Your task to perform on an android device: open app "DuckDuckGo Privacy Browser" (install if not already installed) Image 0: 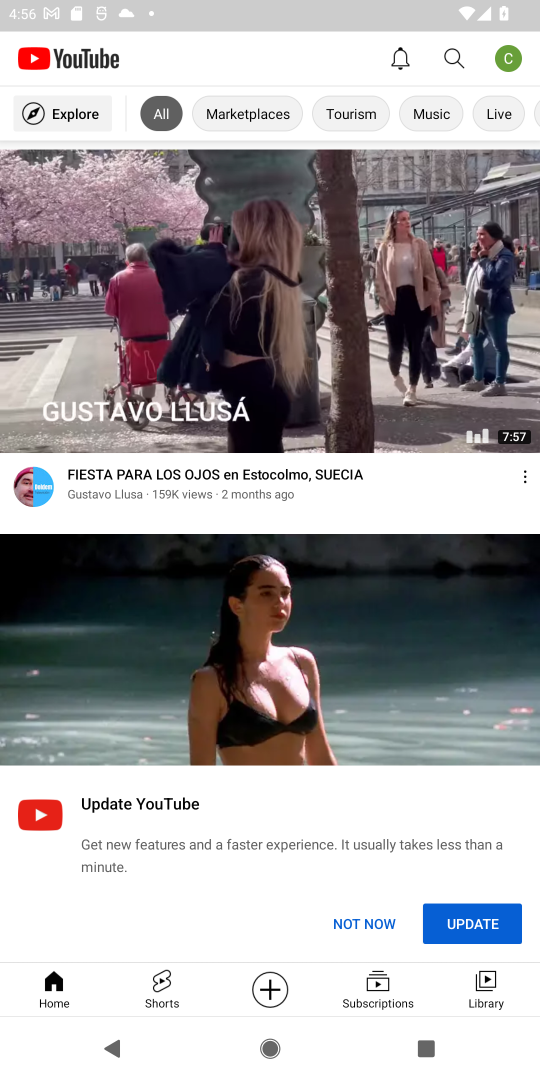
Step 0: press home button
Your task to perform on an android device: open app "DuckDuckGo Privacy Browser" (install if not already installed) Image 1: 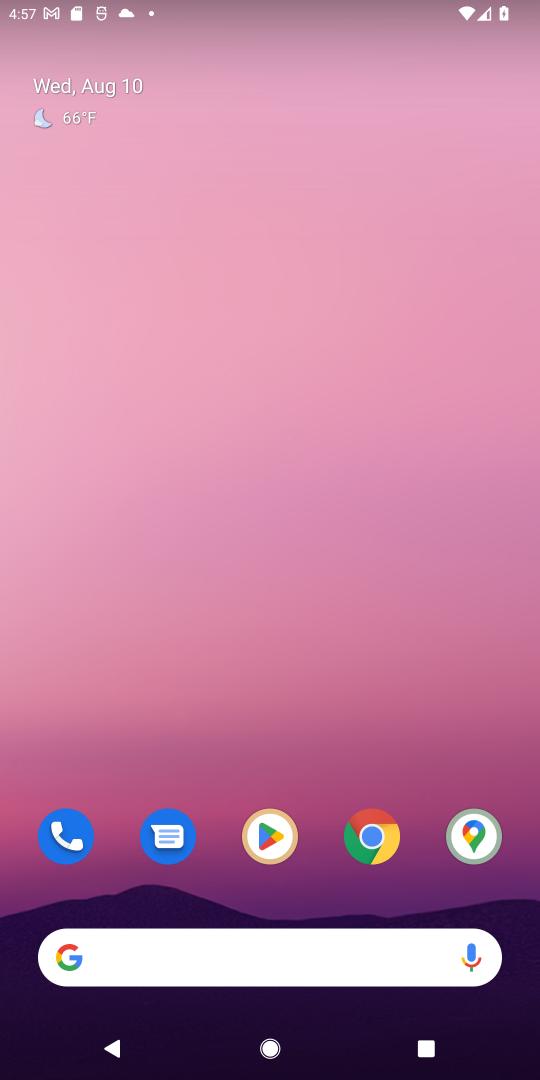
Step 1: drag from (284, 871) to (328, 197)
Your task to perform on an android device: open app "DuckDuckGo Privacy Browser" (install if not already installed) Image 2: 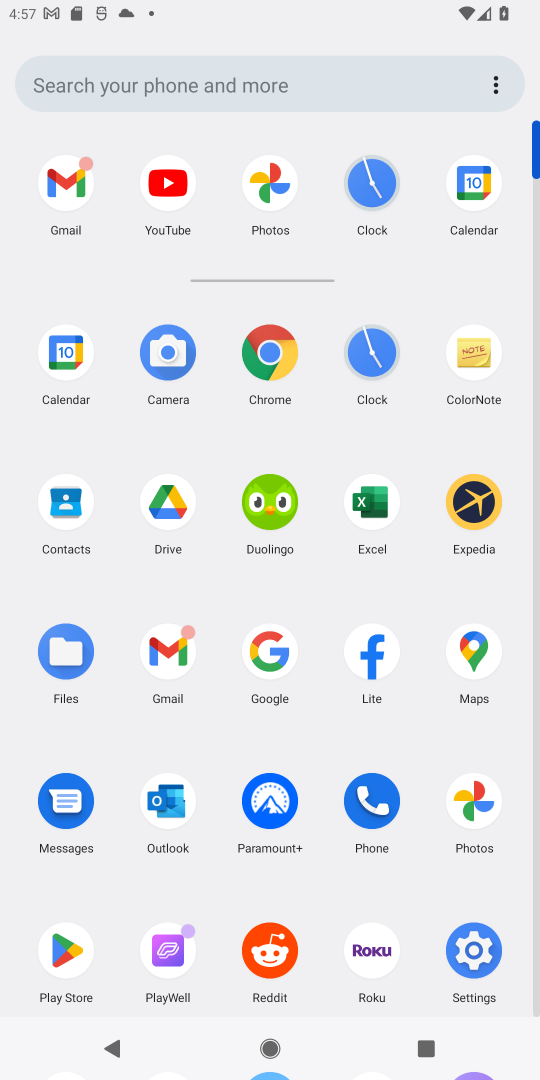
Step 2: click (66, 938)
Your task to perform on an android device: open app "DuckDuckGo Privacy Browser" (install if not already installed) Image 3: 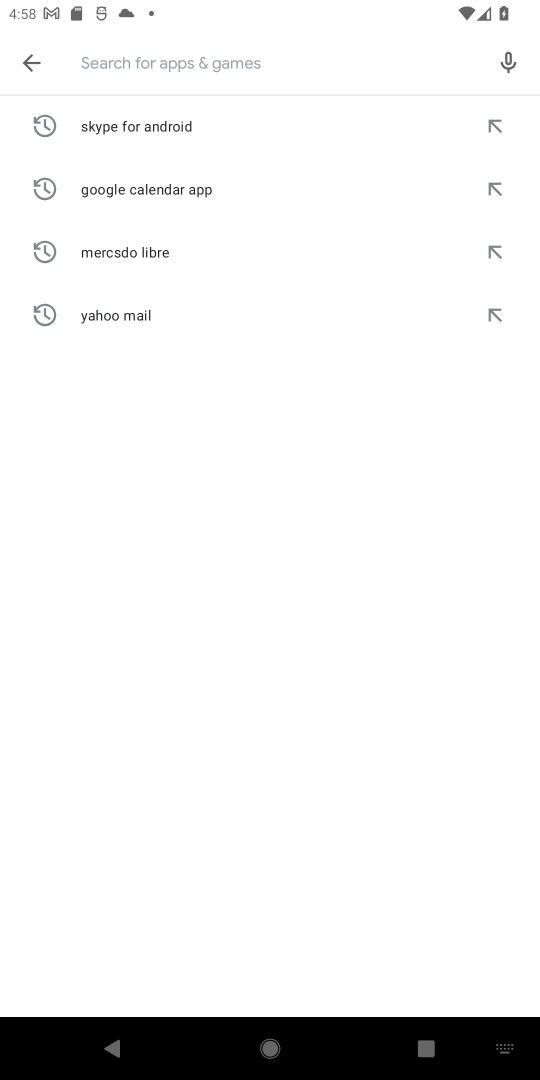
Step 3: click (317, 57)
Your task to perform on an android device: open app "DuckDuckGo Privacy Browser" (install if not already installed) Image 4: 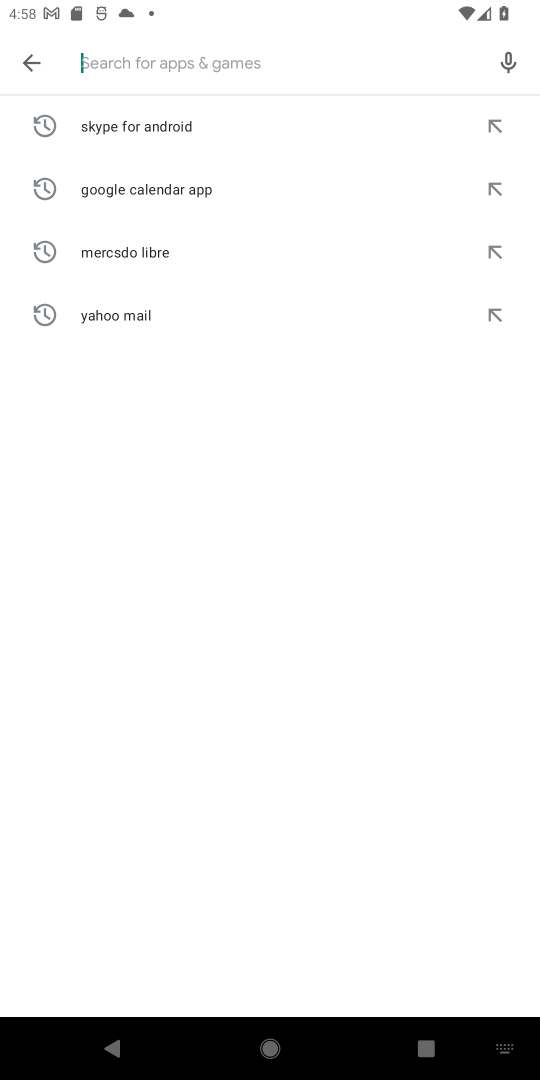
Step 4: type "DuckDuckGo Privacy Browser "
Your task to perform on an android device: open app "DuckDuckGo Privacy Browser" (install if not already installed) Image 5: 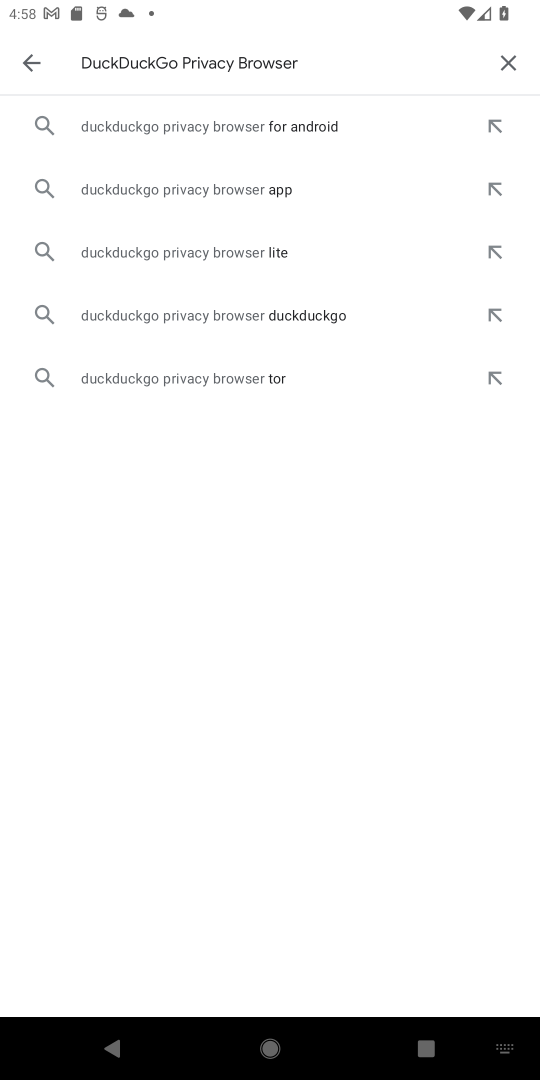
Step 5: click (293, 126)
Your task to perform on an android device: open app "DuckDuckGo Privacy Browser" (install if not already installed) Image 6: 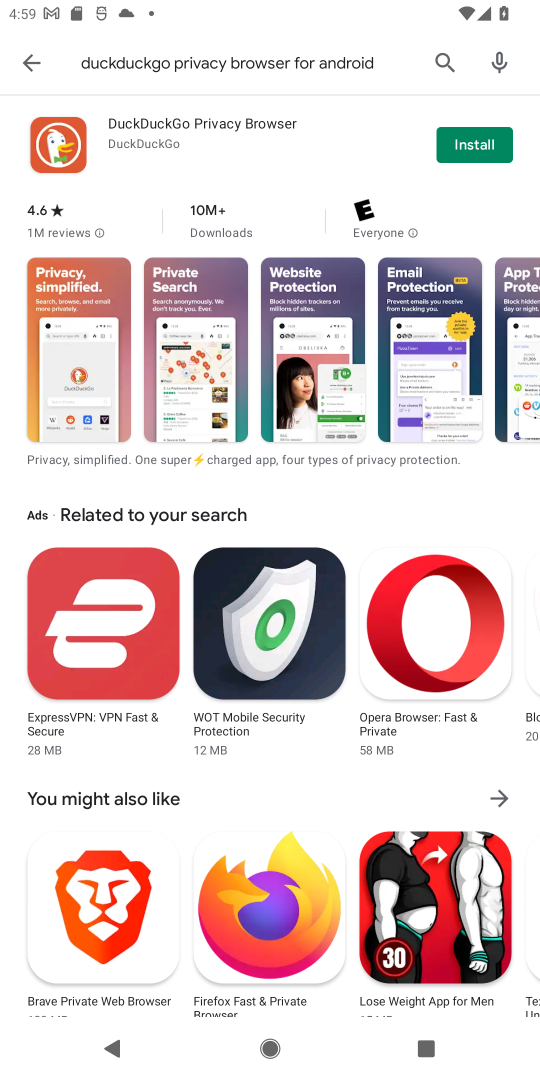
Step 6: click (491, 133)
Your task to perform on an android device: open app "DuckDuckGo Privacy Browser" (install if not already installed) Image 7: 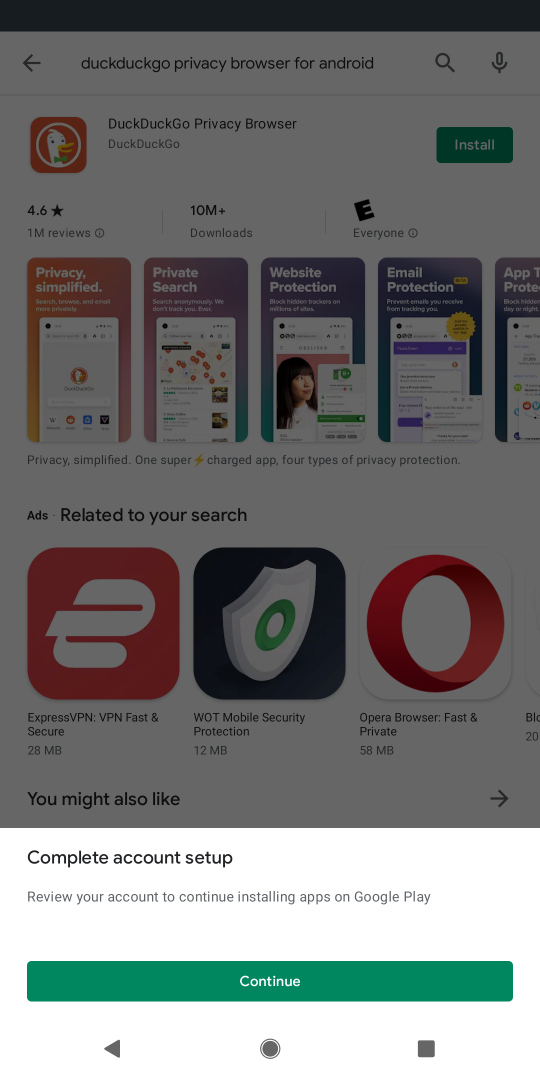
Step 7: task complete